Your task to perform on an android device: Open Wikipedia Image 0: 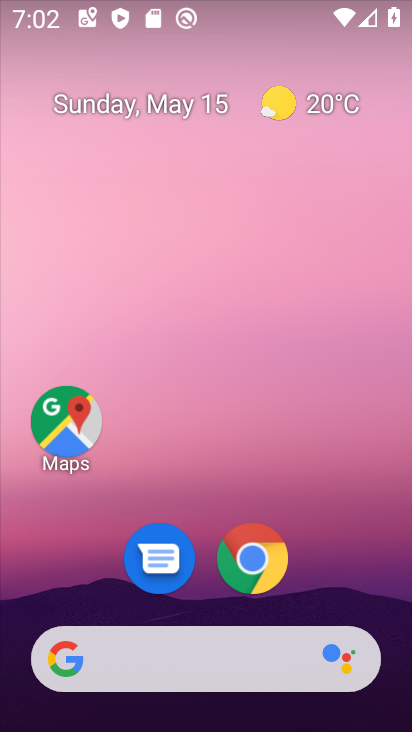
Step 0: click (255, 564)
Your task to perform on an android device: Open Wikipedia Image 1: 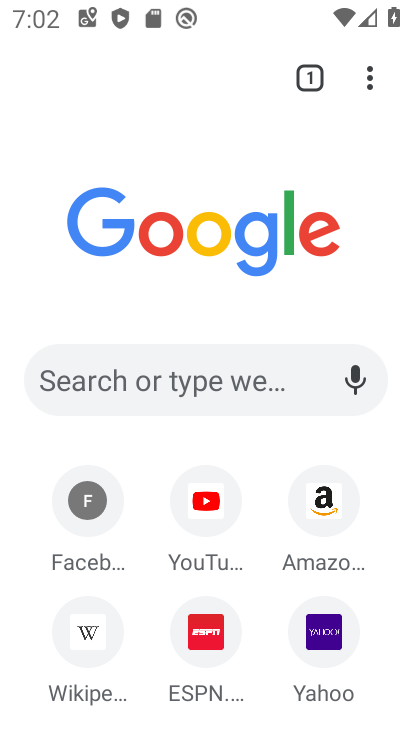
Step 1: click (94, 637)
Your task to perform on an android device: Open Wikipedia Image 2: 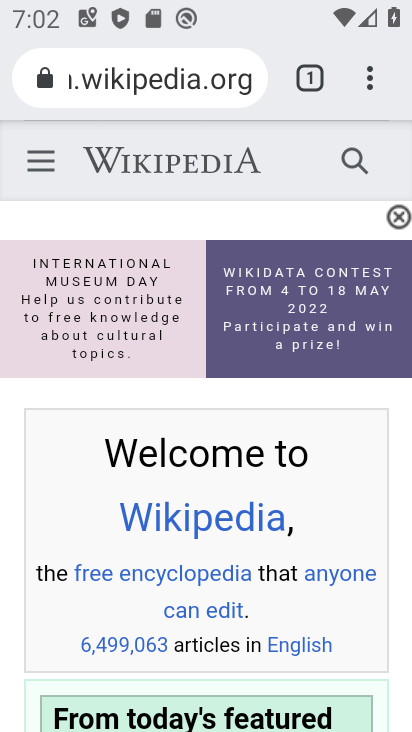
Step 2: task complete